Your task to perform on an android device: delete the emails in spam in the gmail app Image 0: 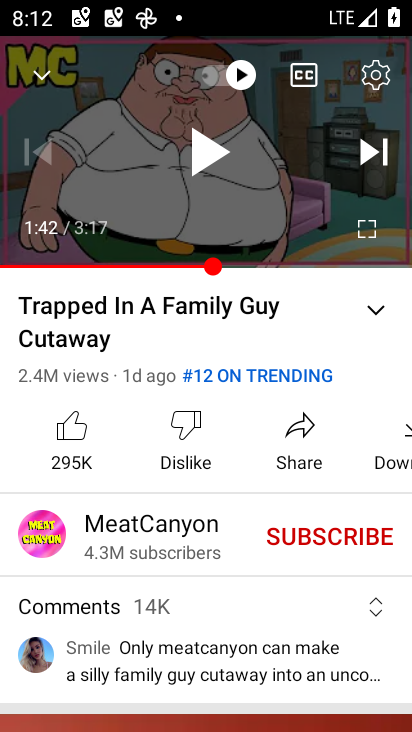
Step 0: press home button
Your task to perform on an android device: delete the emails in spam in the gmail app Image 1: 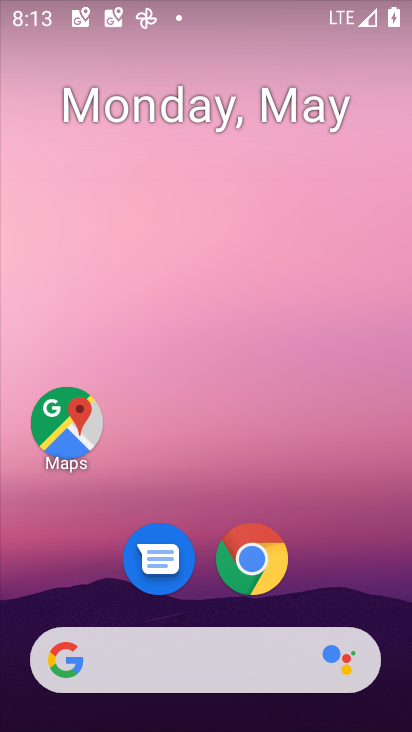
Step 1: drag from (387, 619) to (313, 55)
Your task to perform on an android device: delete the emails in spam in the gmail app Image 2: 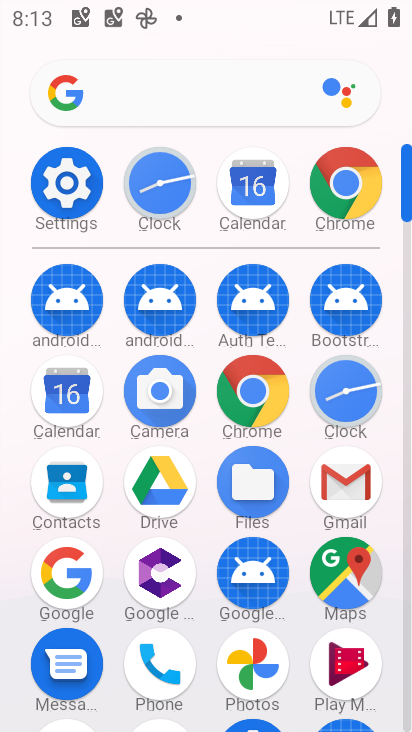
Step 2: click (324, 504)
Your task to perform on an android device: delete the emails in spam in the gmail app Image 3: 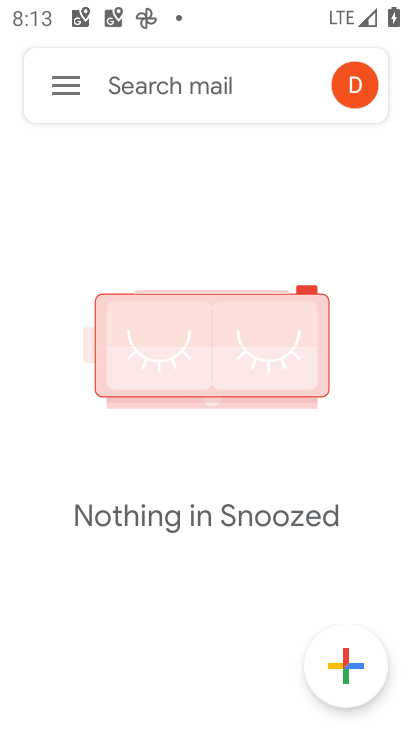
Step 3: click (67, 103)
Your task to perform on an android device: delete the emails in spam in the gmail app Image 4: 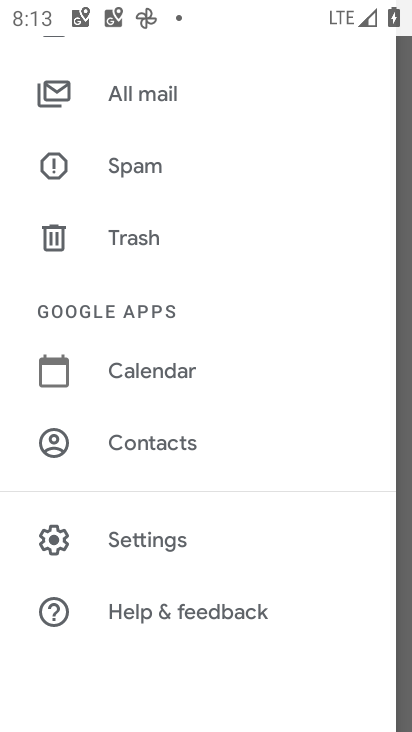
Step 4: click (134, 169)
Your task to perform on an android device: delete the emails in spam in the gmail app Image 5: 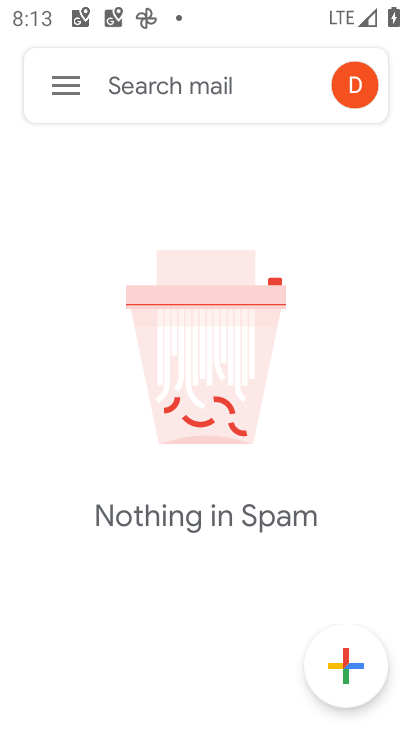
Step 5: task complete